Your task to perform on an android device: change the clock display to analog Image 0: 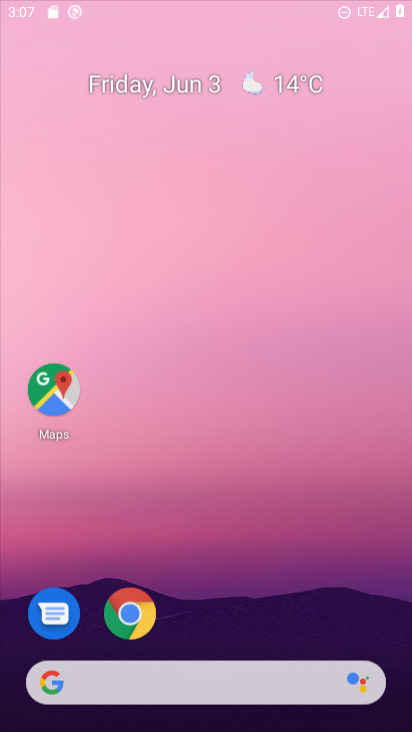
Step 0: click (227, 44)
Your task to perform on an android device: change the clock display to analog Image 1: 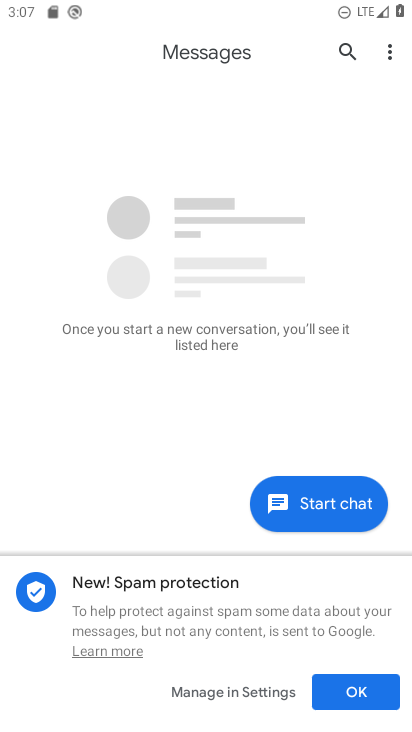
Step 1: press home button
Your task to perform on an android device: change the clock display to analog Image 2: 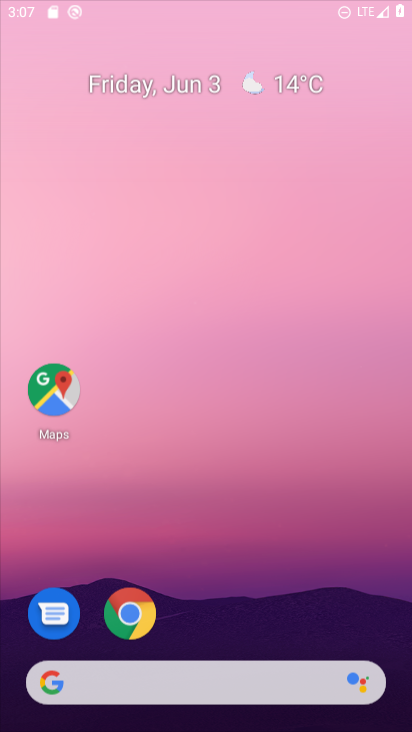
Step 2: drag from (196, 600) to (202, 95)
Your task to perform on an android device: change the clock display to analog Image 3: 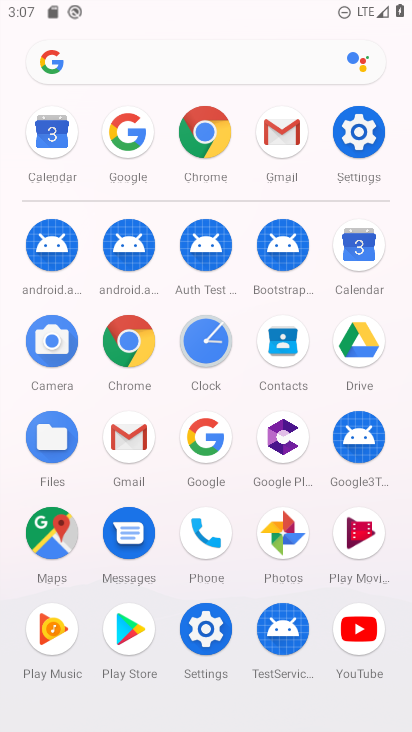
Step 3: click (207, 341)
Your task to perform on an android device: change the clock display to analog Image 4: 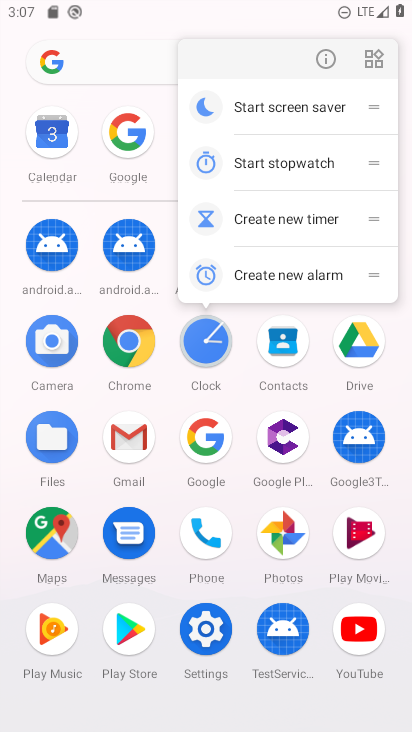
Step 4: click (335, 60)
Your task to perform on an android device: change the clock display to analog Image 5: 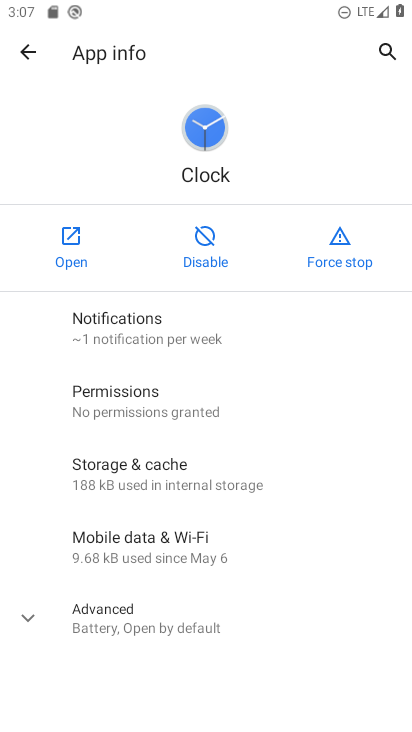
Step 5: click (76, 236)
Your task to perform on an android device: change the clock display to analog Image 6: 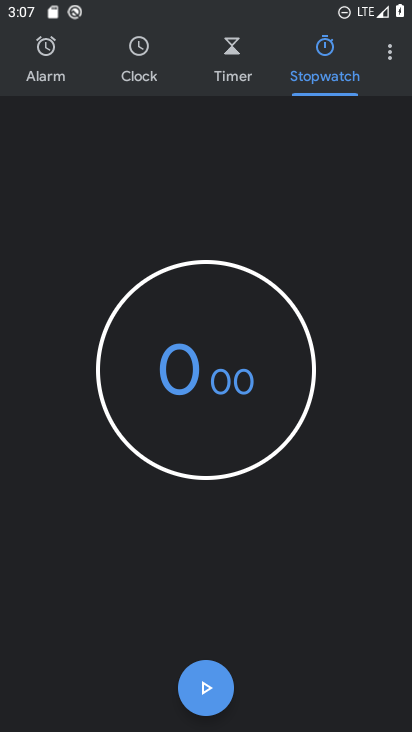
Step 6: click (391, 48)
Your task to perform on an android device: change the clock display to analog Image 7: 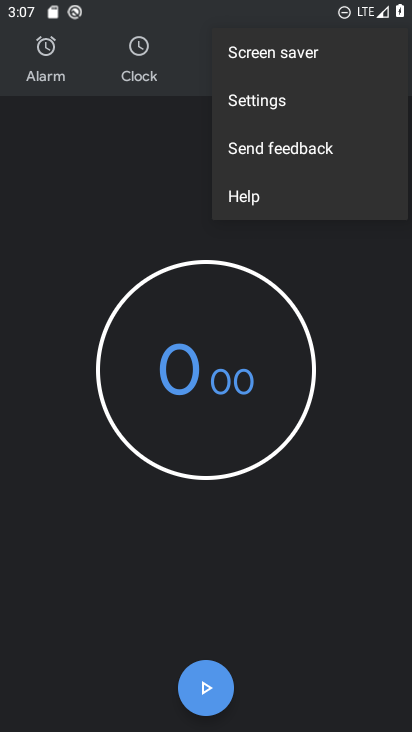
Step 7: click (276, 102)
Your task to perform on an android device: change the clock display to analog Image 8: 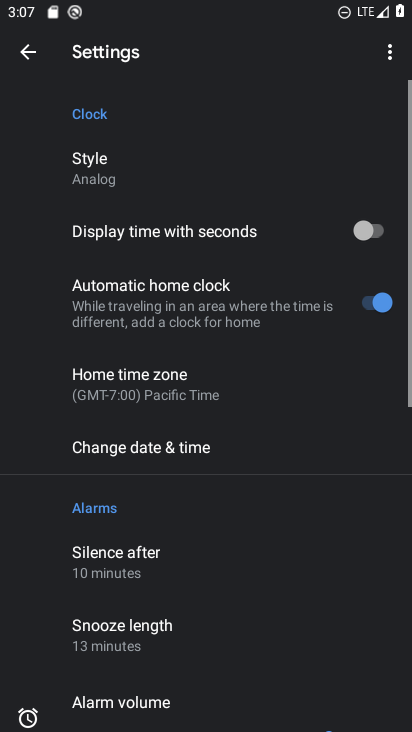
Step 8: click (134, 183)
Your task to perform on an android device: change the clock display to analog Image 9: 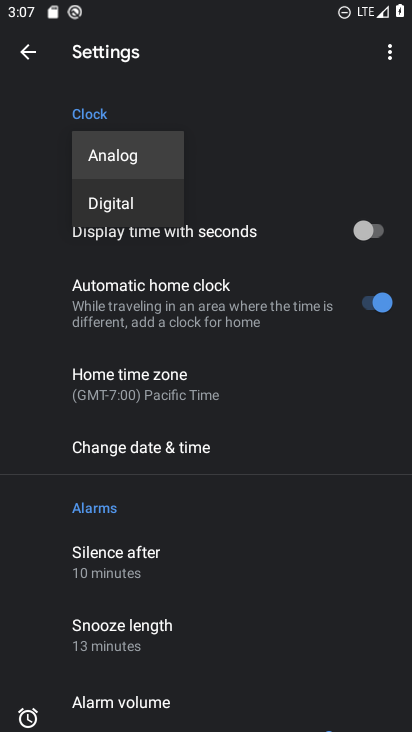
Step 9: click (122, 161)
Your task to perform on an android device: change the clock display to analog Image 10: 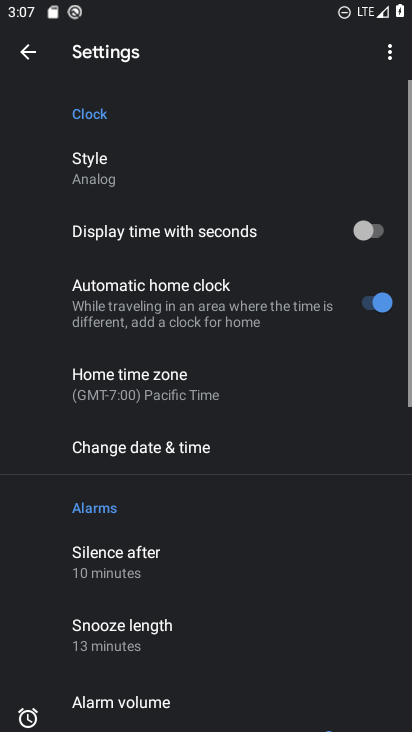
Step 10: task complete